Your task to perform on an android device: What's on the menu at Denny's? Image 0: 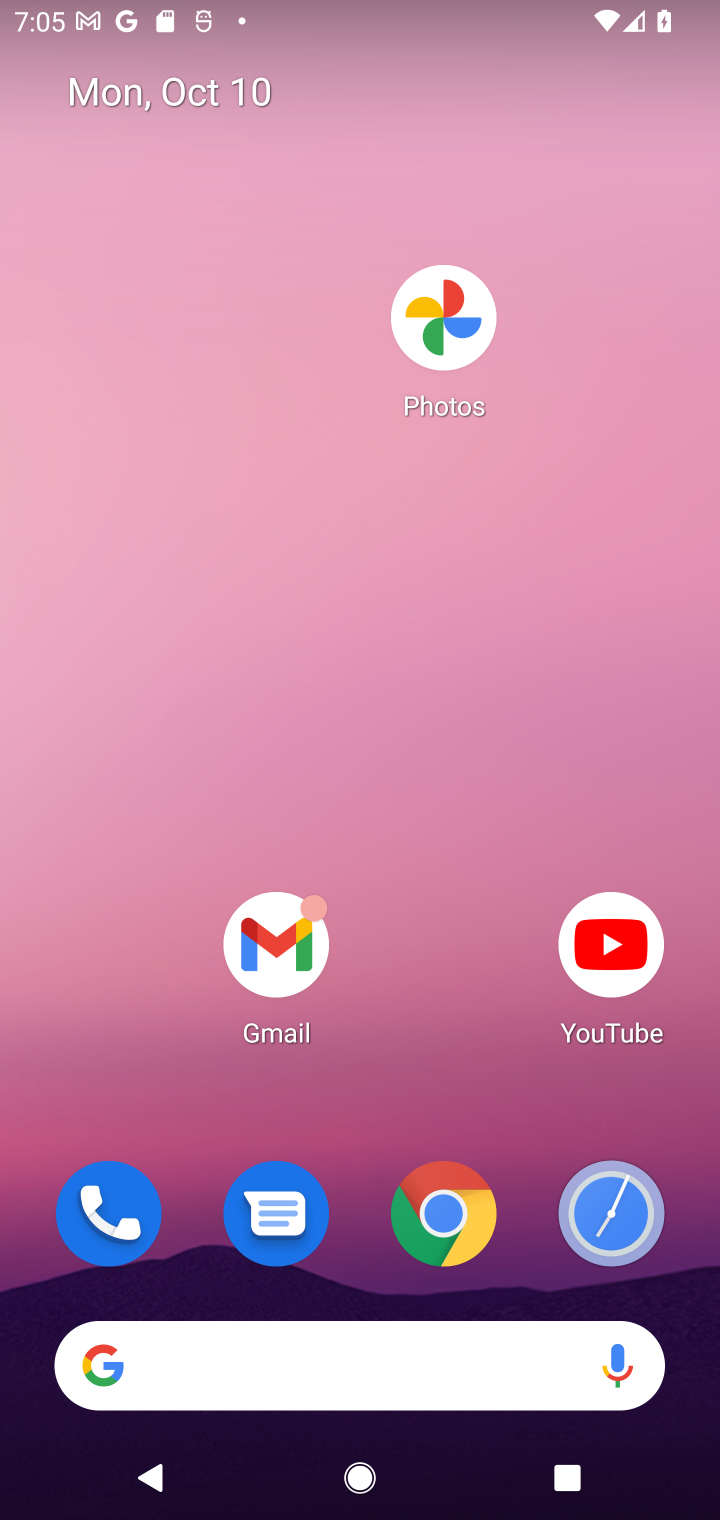
Step 0: click (365, 1360)
Your task to perform on an android device: What's on the menu at Denny's? Image 1: 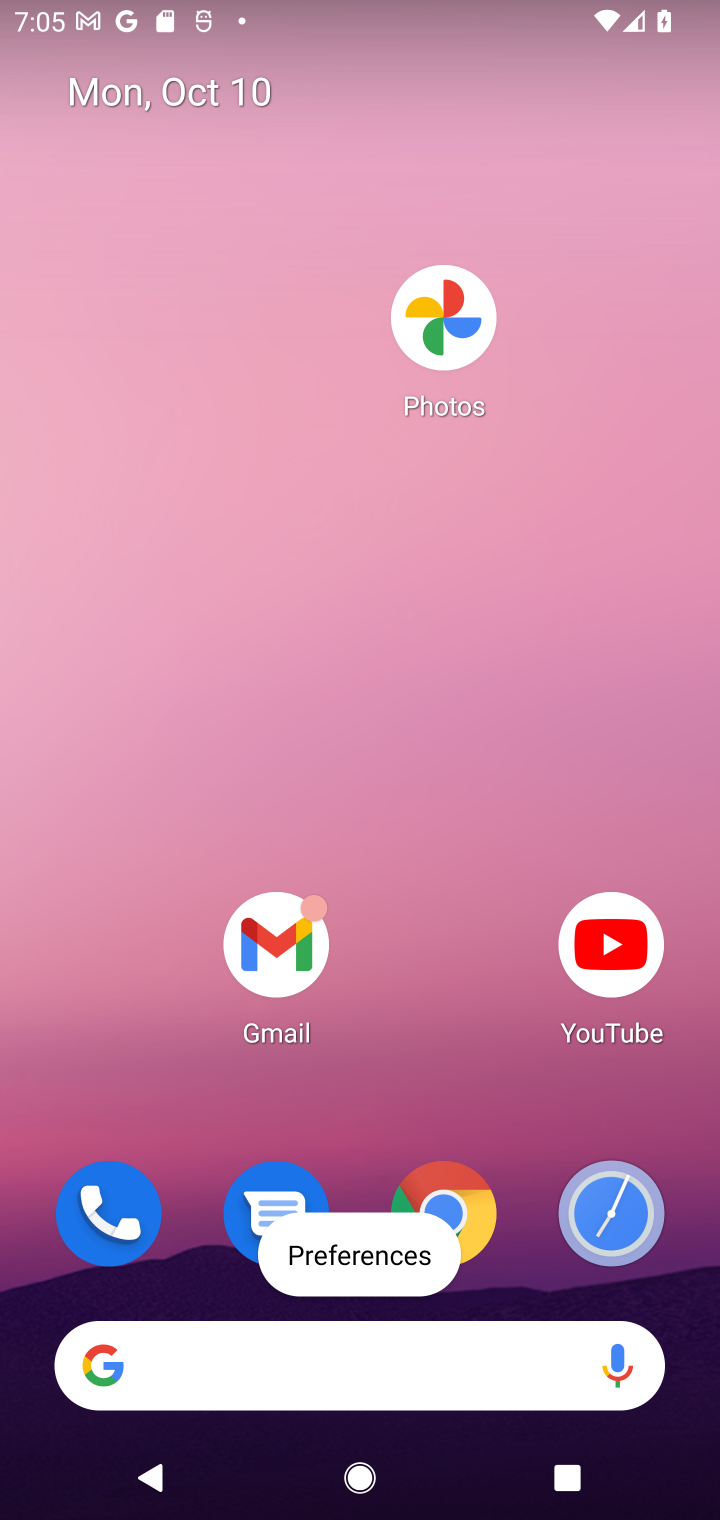
Step 1: click (316, 1386)
Your task to perform on an android device: What's on the menu at Denny's? Image 2: 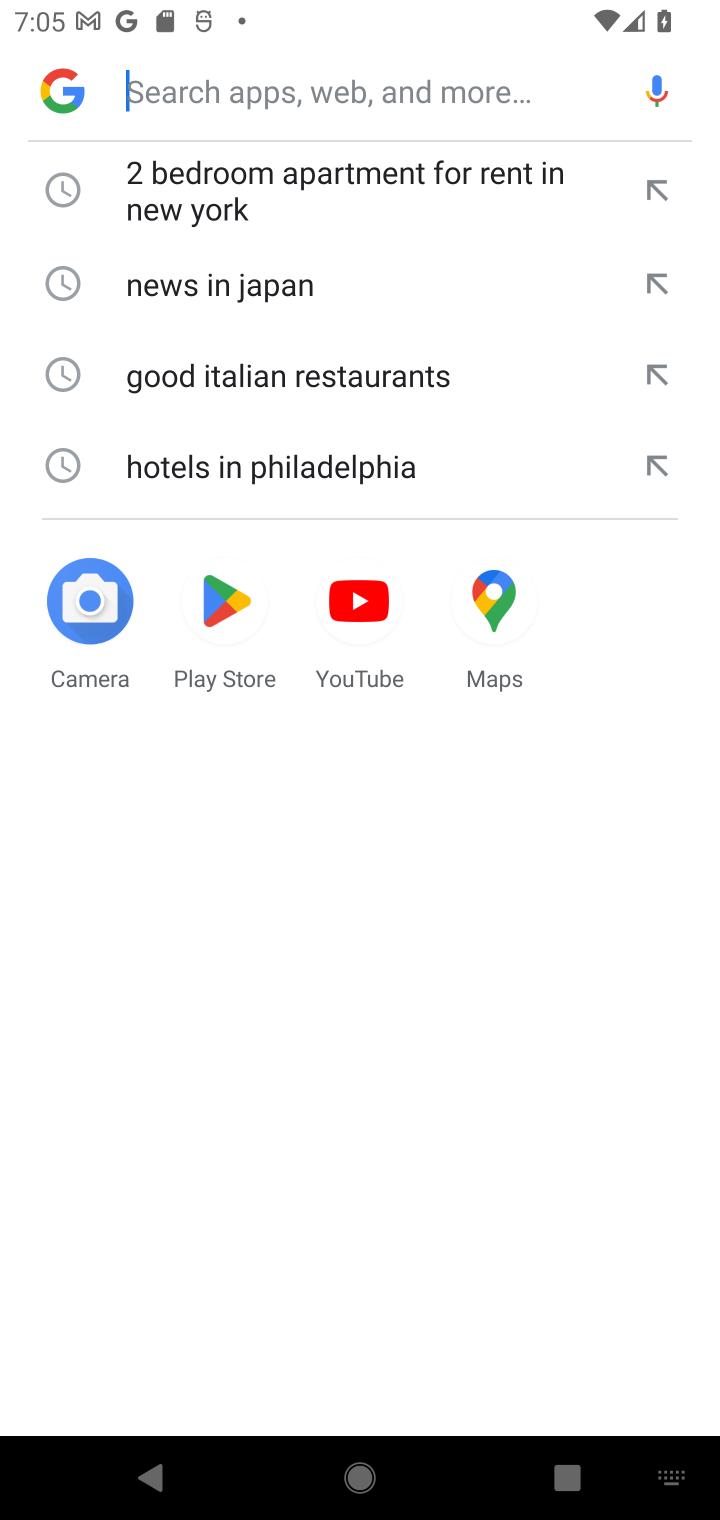
Step 2: type " menu at Denny's"
Your task to perform on an android device: What's on the menu at Denny's? Image 3: 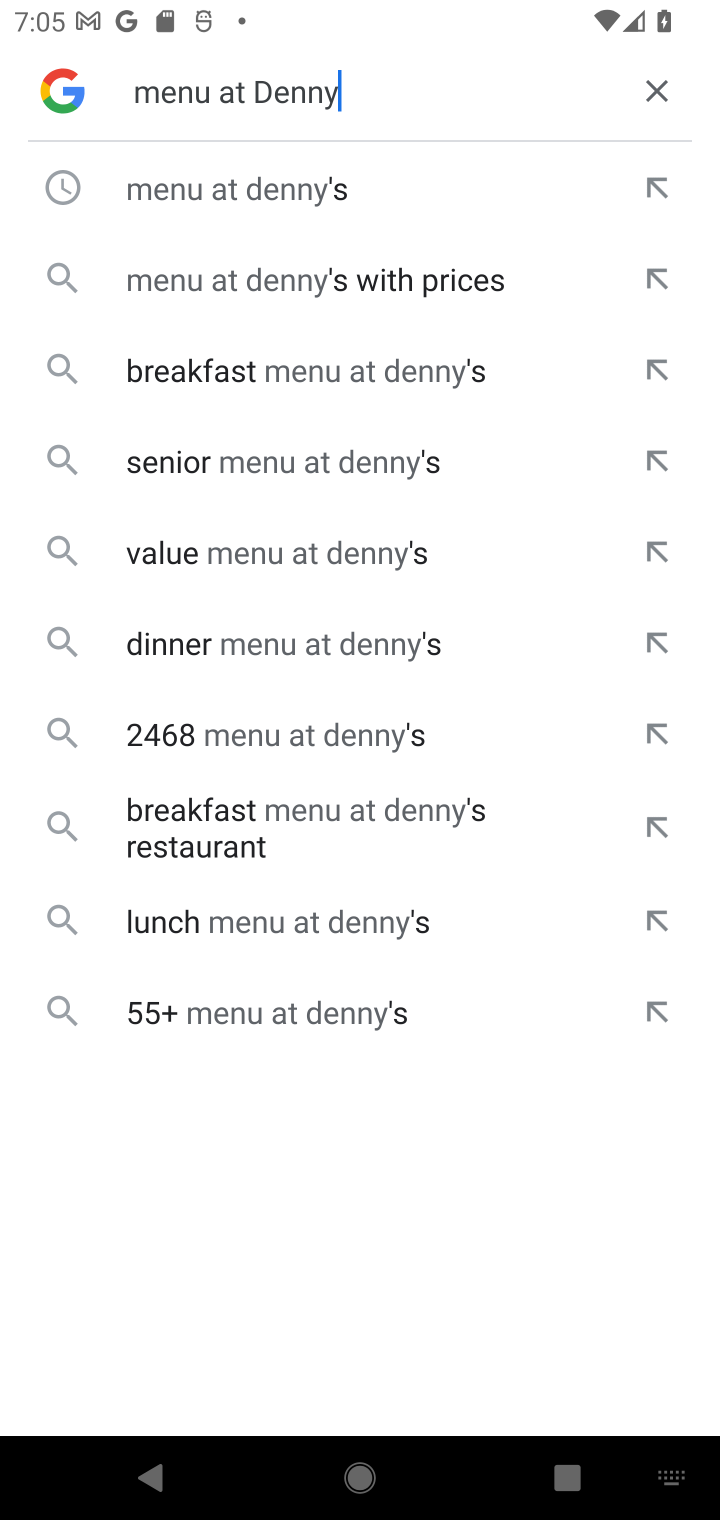
Step 3: type ""
Your task to perform on an android device: What's on the menu at Denny's? Image 4: 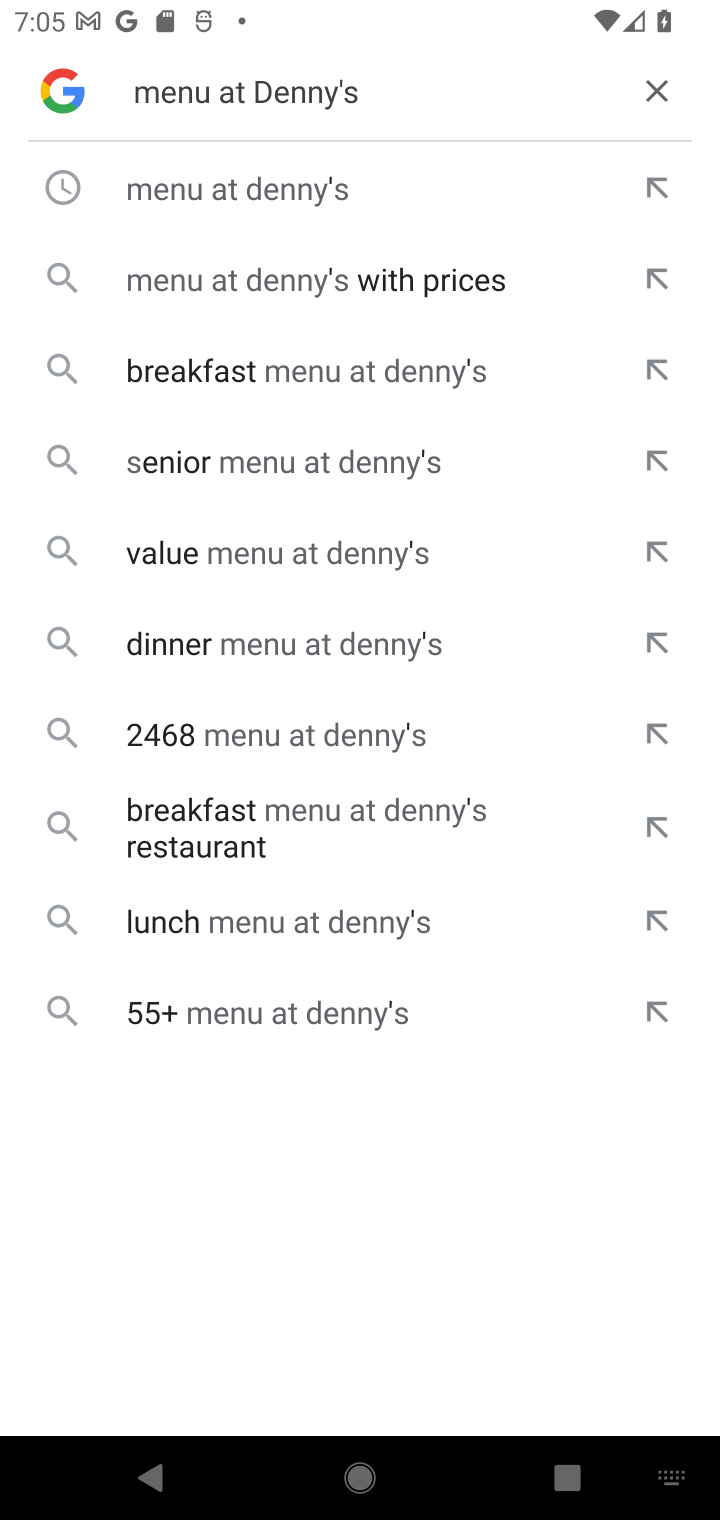
Step 4: click (153, 187)
Your task to perform on an android device: What's on the menu at Denny's? Image 5: 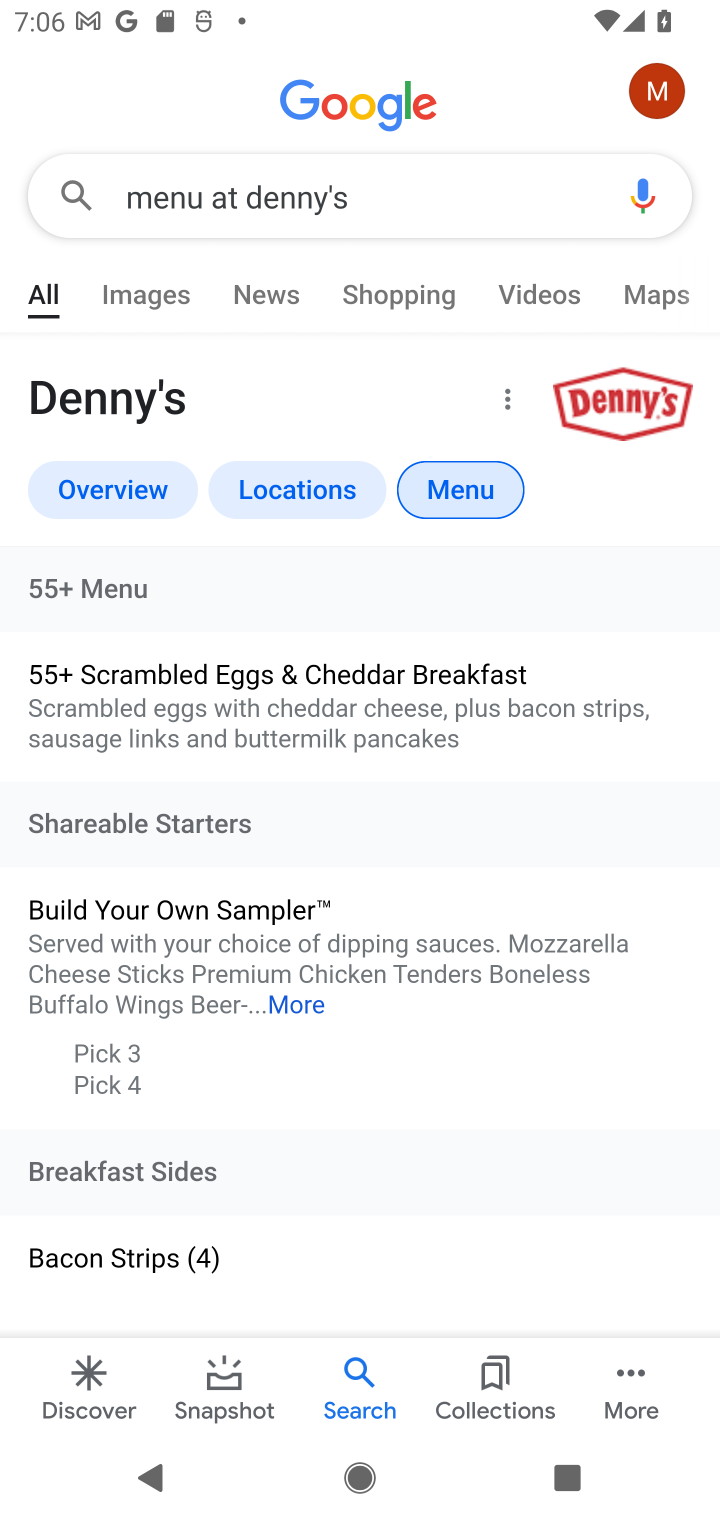
Step 5: task complete